Your task to perform on an android device: What's the weather going to be this weekend? Image 0: 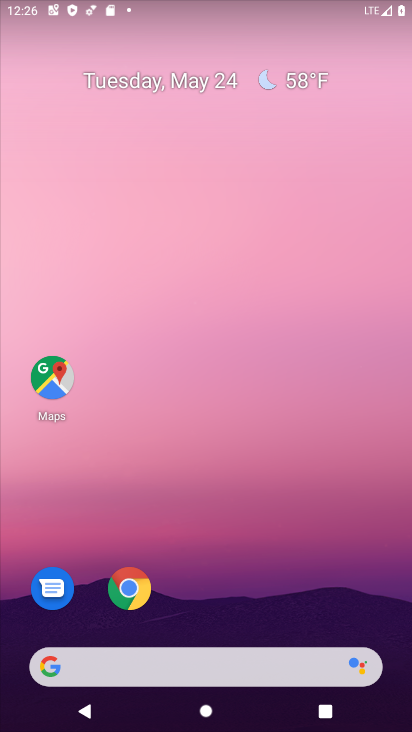
Step 0: drag from (215, 544) to (201, 188)
Your task to perform on an android device: What's the weather going to be this weekend? Image 1: 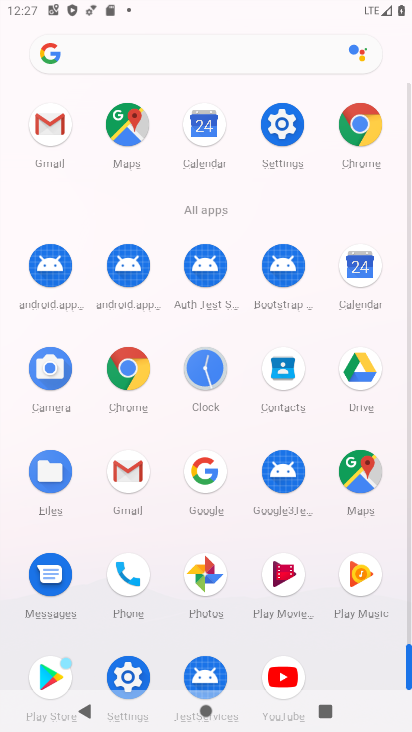
Step 1: drag from (156, 639) to (165, 429)
Your task to perform on an android device: What's the weather going to be this weekend? Image 2: 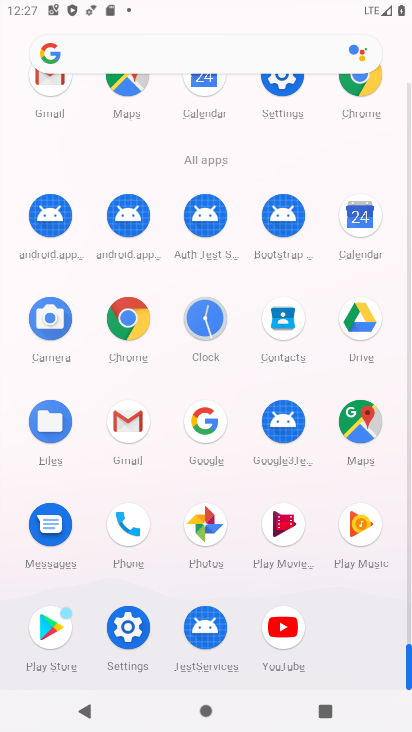
Step 2: click (196, 428)
Your task to perform on an android device: What's the weather going to be this weekend? Image 3: 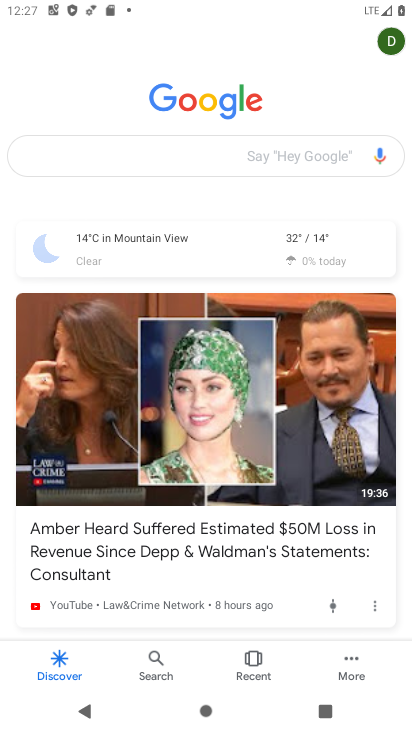
Step 3: click (144, 146)
Your task to perform on an android device: What's the weather going to be this weekend? Image 4: 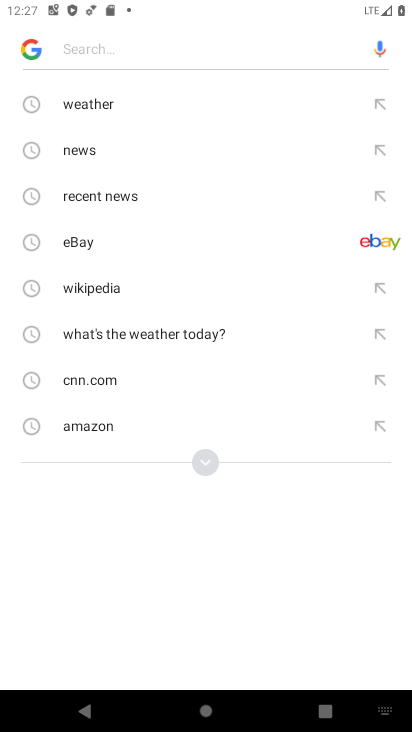
Step 4: click (102, 106)
Your task to perform on an android device: What's the weather going to be this weekend? Image 5: 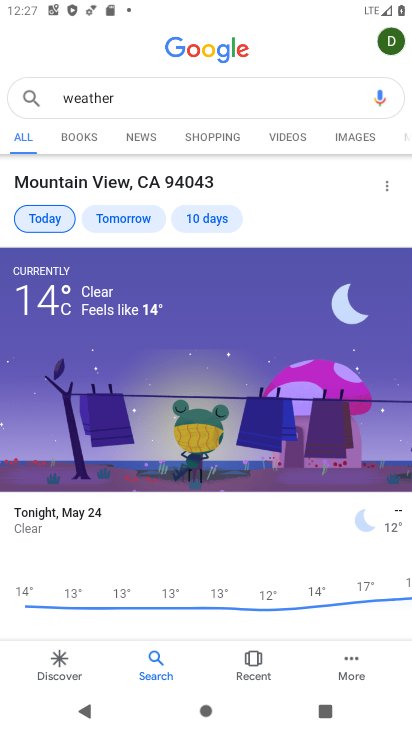
Step 5: task complete